Your task to perform on an android device: When is my next appointment? Image 0: 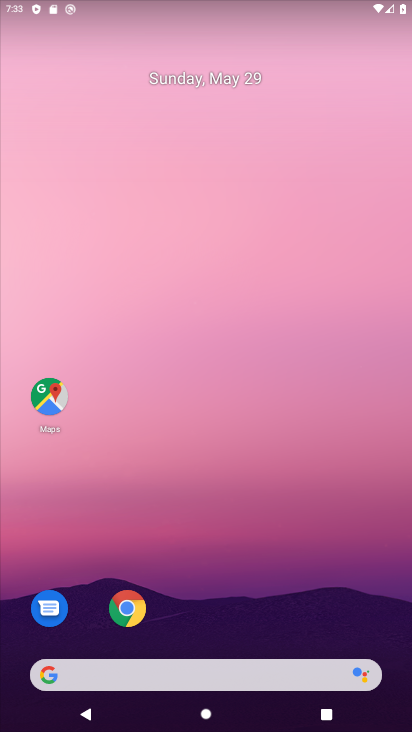
Step 0: drag from (259, 549) to (212, 206)
Your task to perform on an android device: When is my next appointment? Image 1: 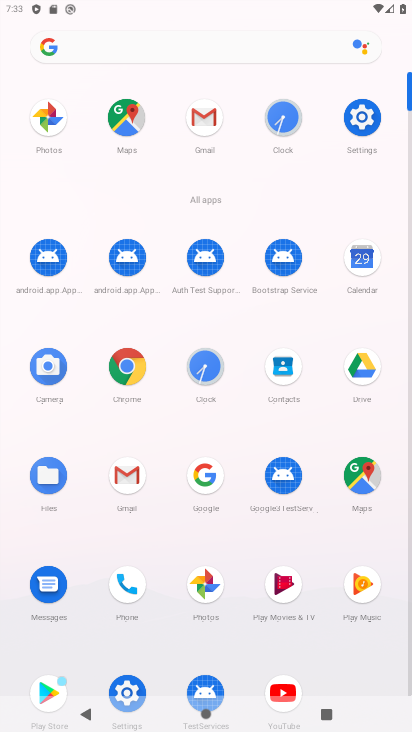
Step 1: click (365, 264)
Your task to perform on an android device: When is my next appointment? Image 2: 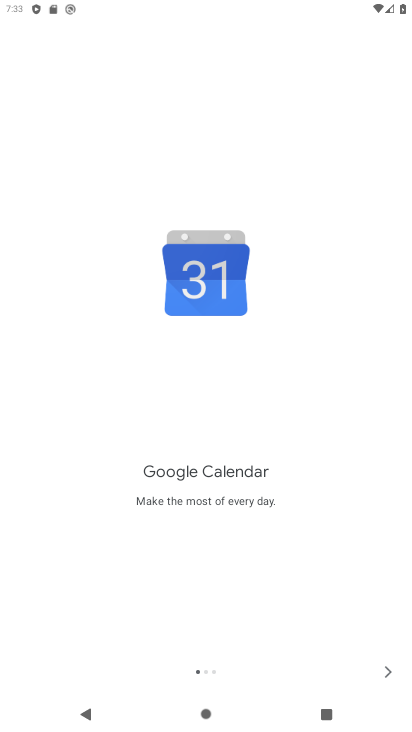
Step 2: click (381, 672)
Your task to perform on an android device: When is my next appointment? Image 3: 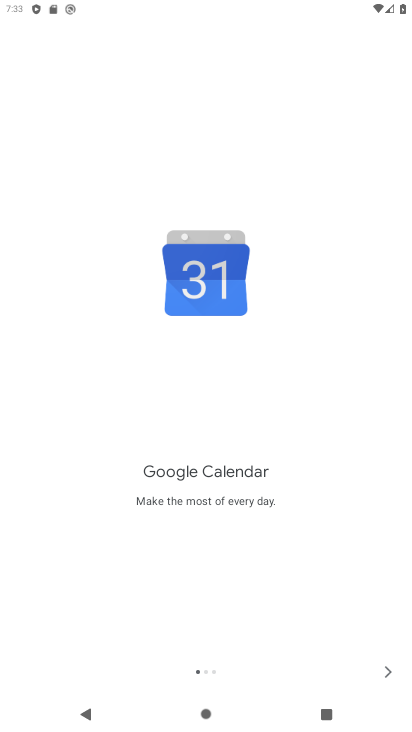
Step 3: click (381, 672)
Your task to perform on an android device: When is my next appointment? Image 4: 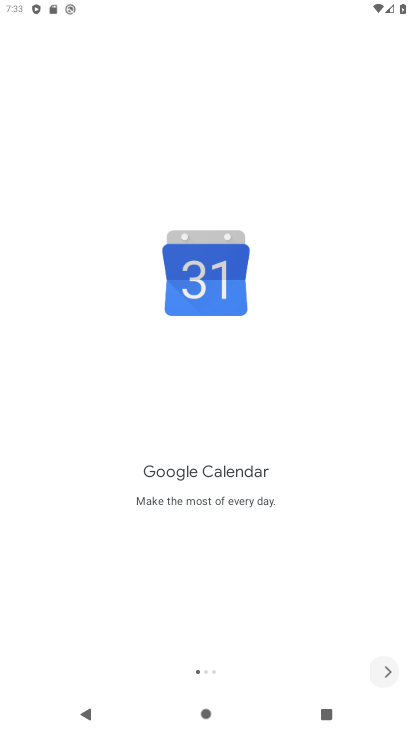
Step 4: click (381, 672)
Your task to perform on an android device: When is my next appointment? Image 5: 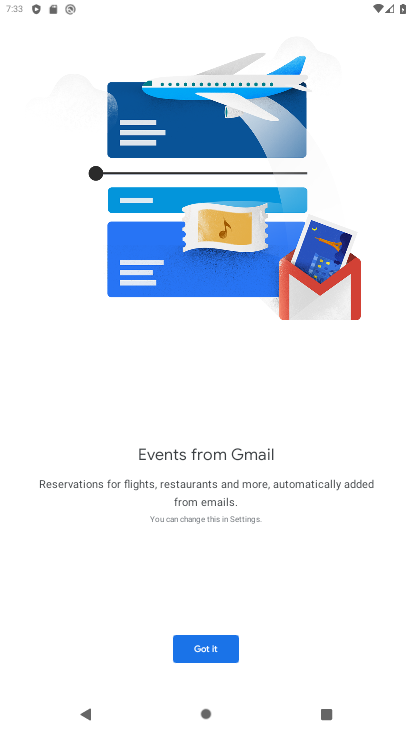
Step 5: click (219, 648)
Your task to perform on an android device: When is my next appointment? Image 6: 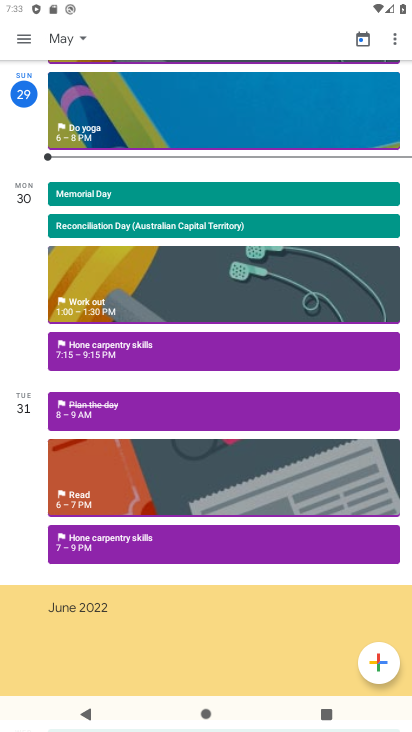
Step 6: task complete